Your task to perform on an android device: Open Chrome and go to settings Image 0: 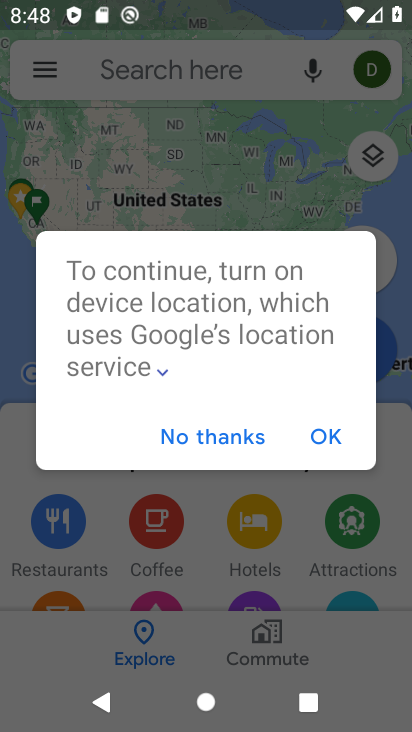
Step 0: press home button
Your task to perform on an android device: Open Chrome and go to settings Image 1: 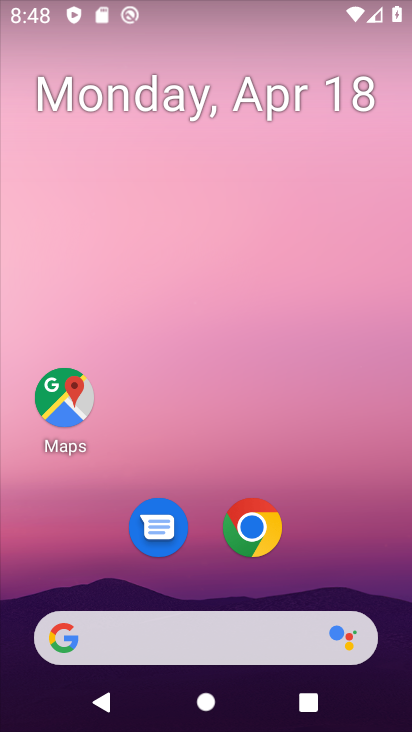
Step 1: drag from (344, 558) to (337, 62)
Your task to perform on an android device: Open Chrome and go to settings Image 2: 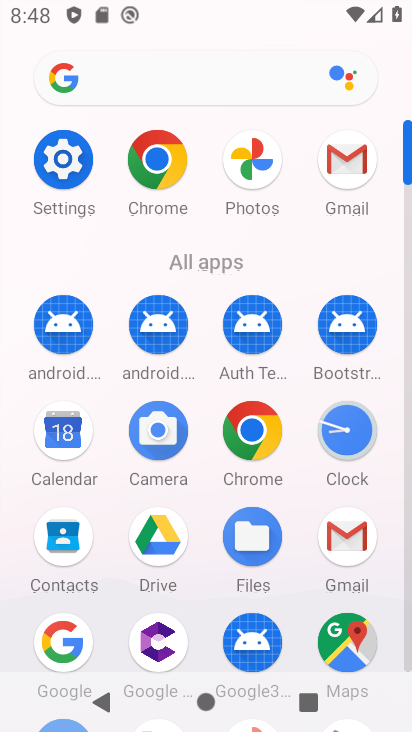
Step 2: click (258, 429)
Your task to perform on an android device: Open Chrome and go to settings Image 3: 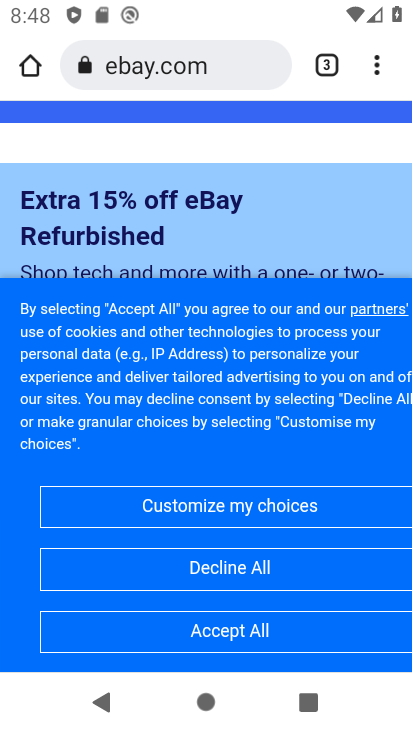
Step 3: task complete